Your task to perform on an android device: turn vacation reply on in the gmail app Image 0: 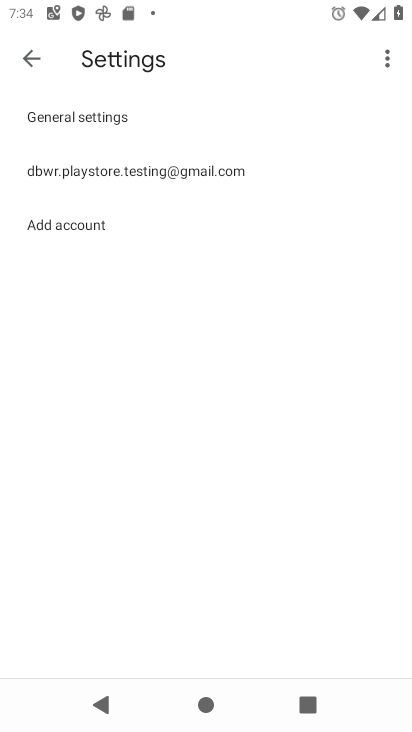
Step 0: press home button
Your task to perform on an android device: turn vacation reply on in the gmail app Image 1: 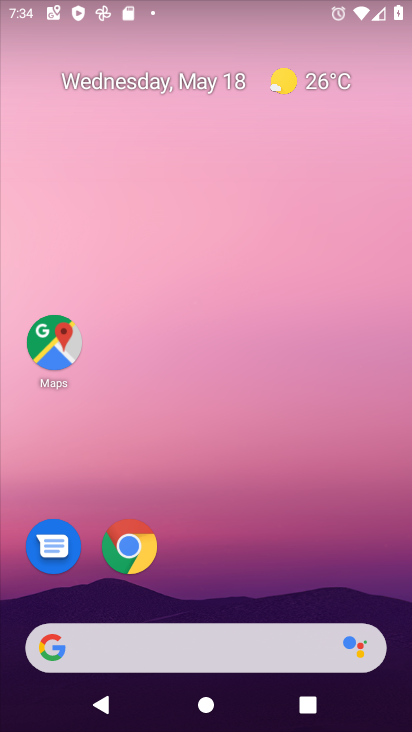
Step 1: drag from (373, 609) to (254, 52)
Your task to perform on an android device: turn vacation reply on in the gmail app Image 2: 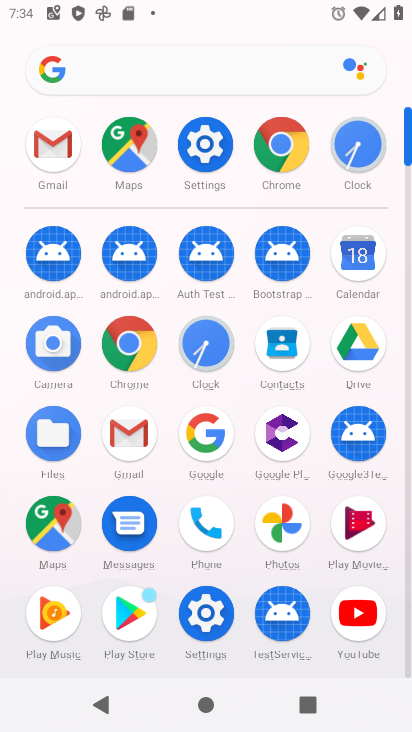
Step 2: click (124, 442)
Your task to perform on an android device: turn vacation reply on in the gmail app Image 3: 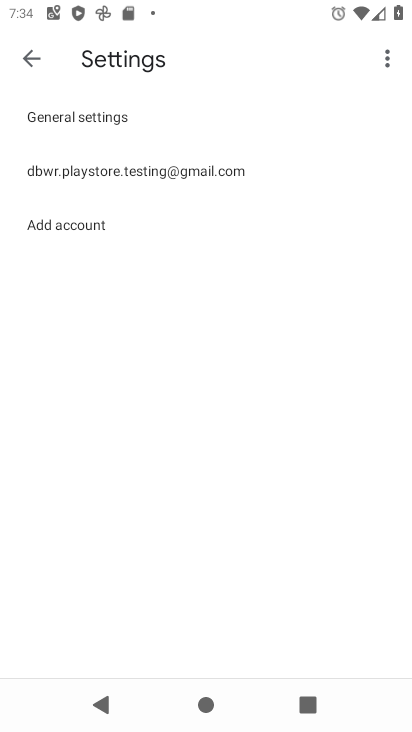
Step 3: click (125, 166)
Your task to perform on an android device: turn vacation reply on in the gmail app Image 4: 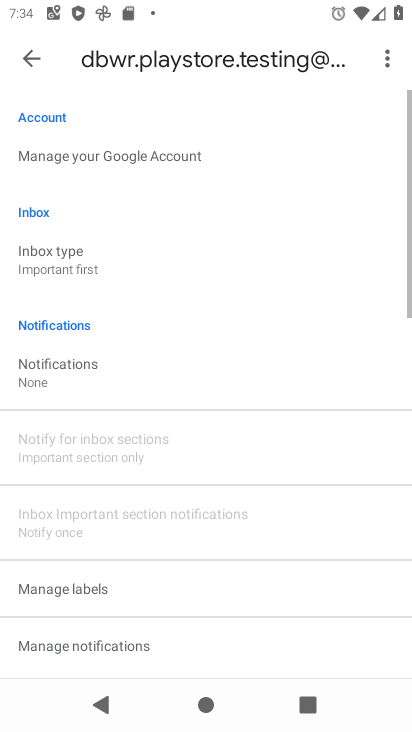
Step 4: drag from (169, 644) to (200, 65)
Your task to perform on an android device: turn vacation reply on in the gmail app Image 5: 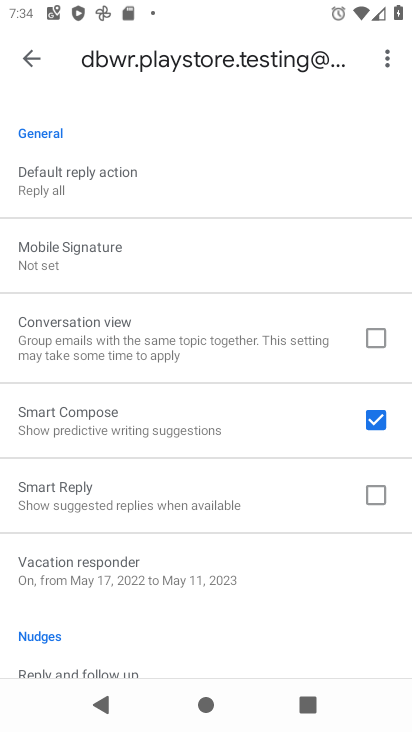
Step 5: click (172, 585)
Your task to perform on an android device: turn vacation reply on in the gmail app Image 6: 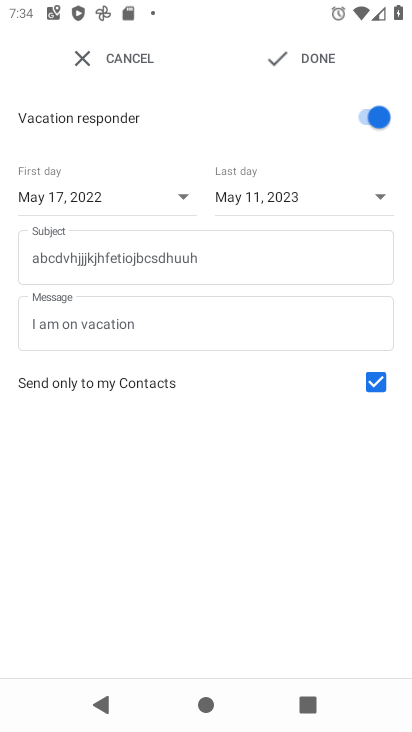
Step 6: task complete